Your task to perform on an android device: check data usage Image 0: 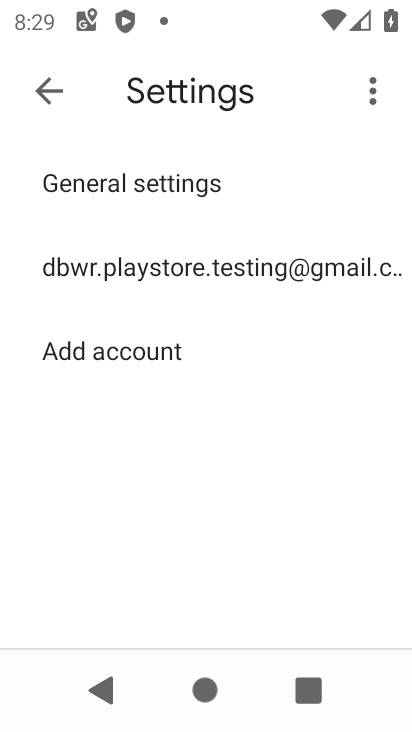
Step 0: press home button
Your task to perform on an android device: check data usage Image 1: 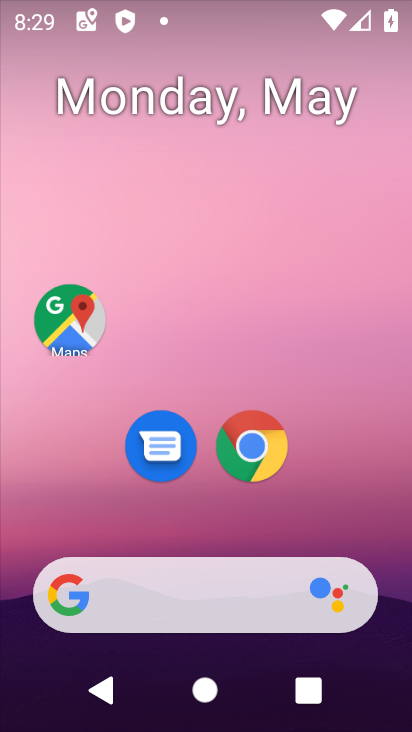
Step 1: drag from (210, 532) to (221, 38)
Your task to perform on an android device: check data usage Image 2: 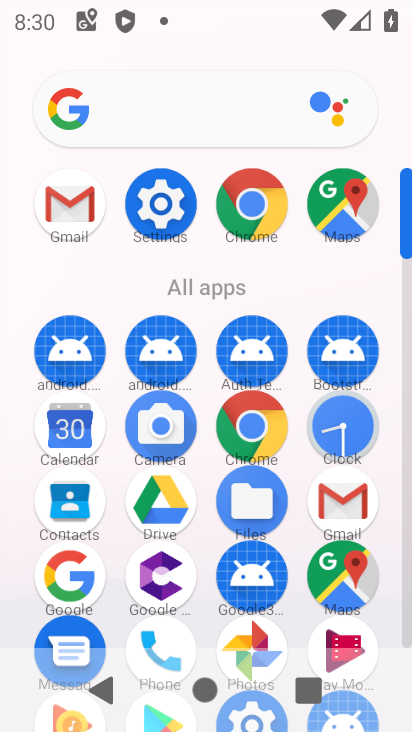
Step 2: click (160, 197)
Your task to perform on an android device: check data usage Image 3: 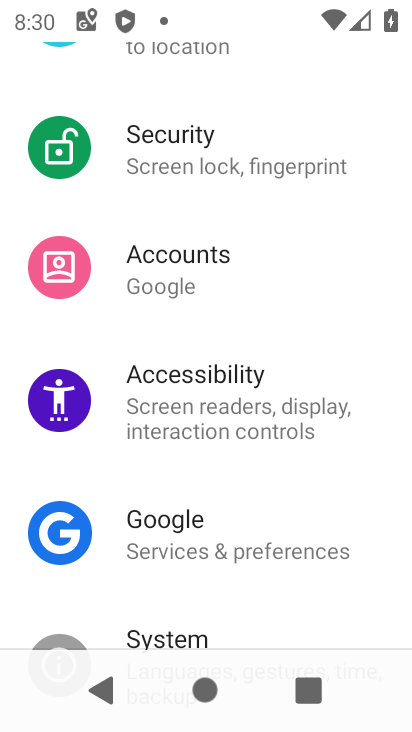
Step 3: drag from (230, 156) to (229, 684)
Your task to perform on an android device: check data usage Image 4: 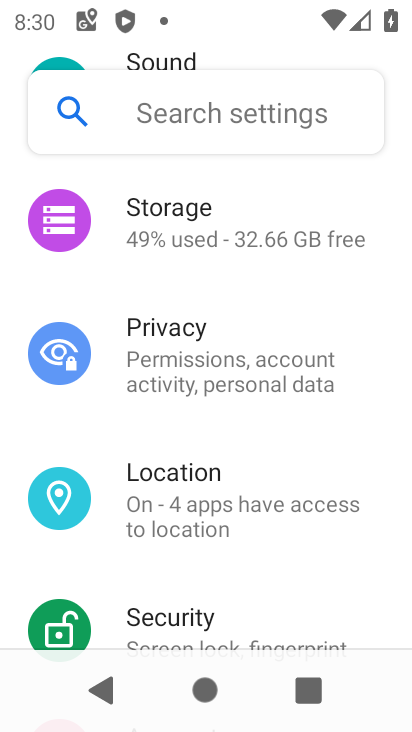
Step 4: drag from (221, 184) to (219, 645)
Your task to perform on an android device: check data usage Image 5: 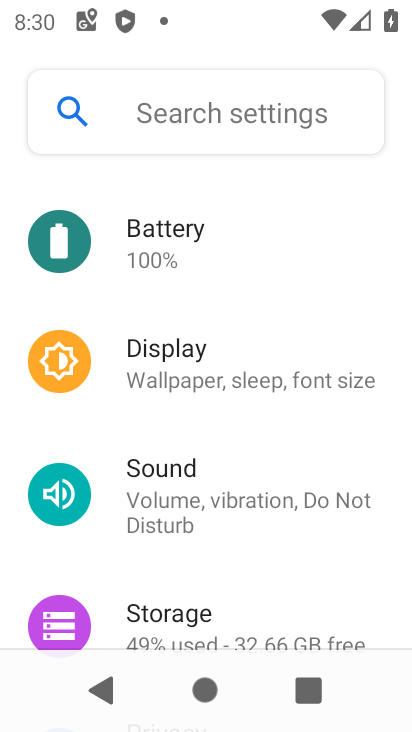
Step 5: drag from (232, 178) to (256, 661)
Your task to perform on an android device: check data usage Image 6: 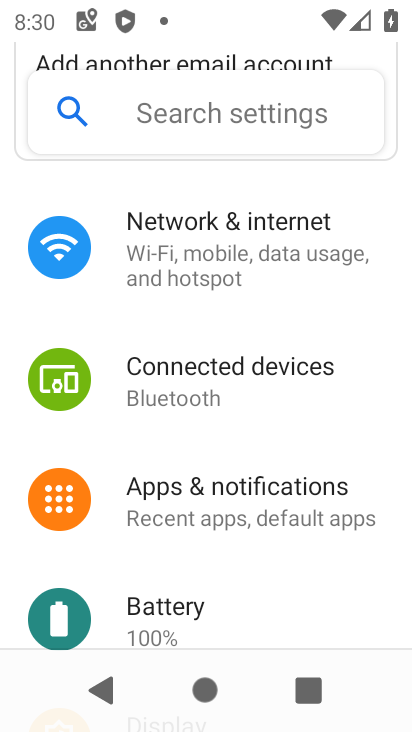
Step 6: click (252, 267)
Your task to perform on an android device: check data usage Image 7: 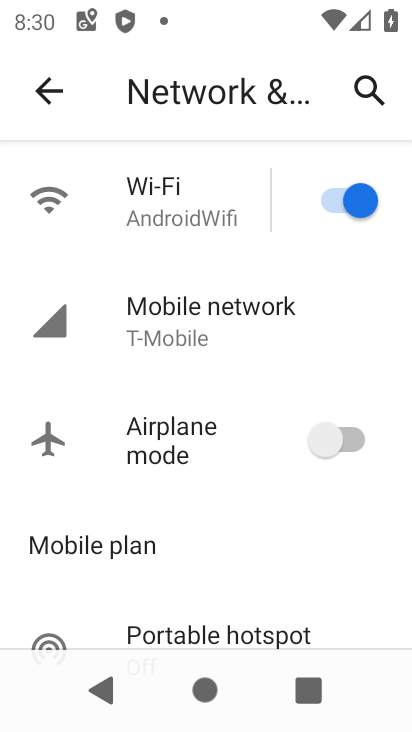
Step 7: click (230, 323)
Your task to perform on an android device: check data usage Image 8: 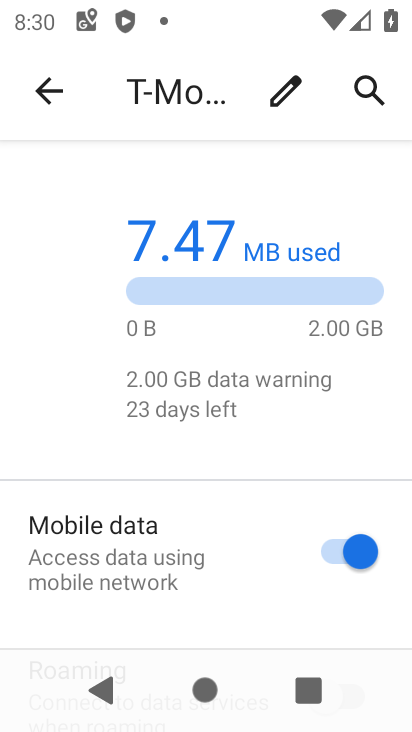
Step 8: drag from (222, 580) to (234, 223)
Your task to perform on an android device: check data usage Image 9: 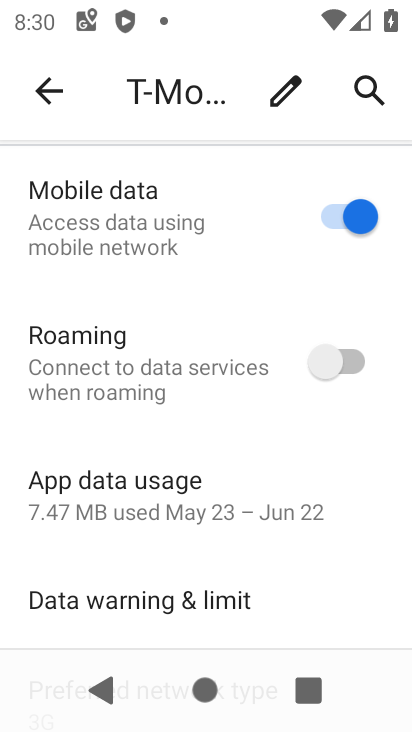
Step 9: click (220, 479)
Your task to perform on an android device: check data usage Image 10: 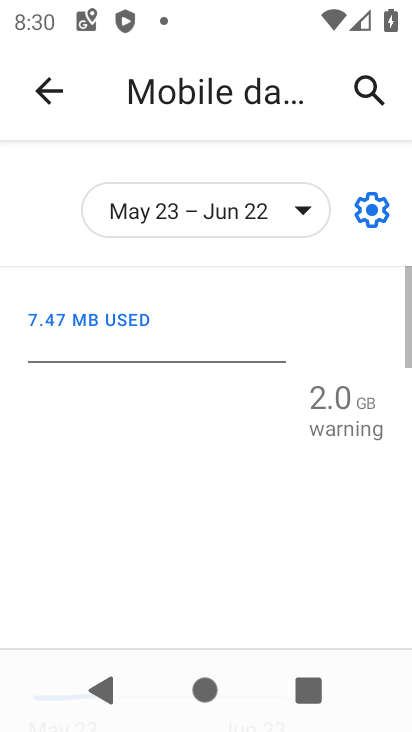
Step 10: task complete